Your task to perform on an android device: View the shopping cart on amazon. Add "logitech g933" to the cart on amazon Image 0: 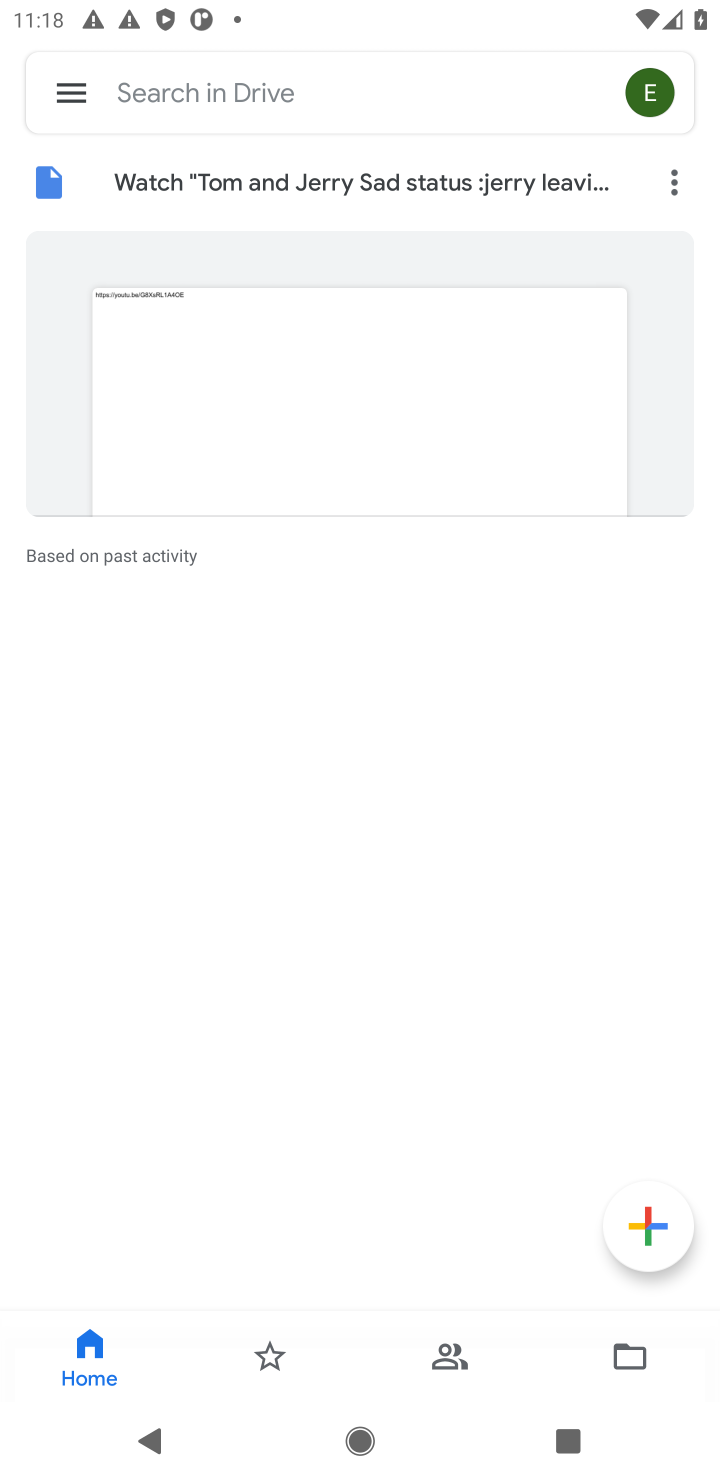
Step 0: press home button
Your task to perform on an android device: View the shopping cart on amazon. Add "logitech g933" to the cart on amazon Image 1: 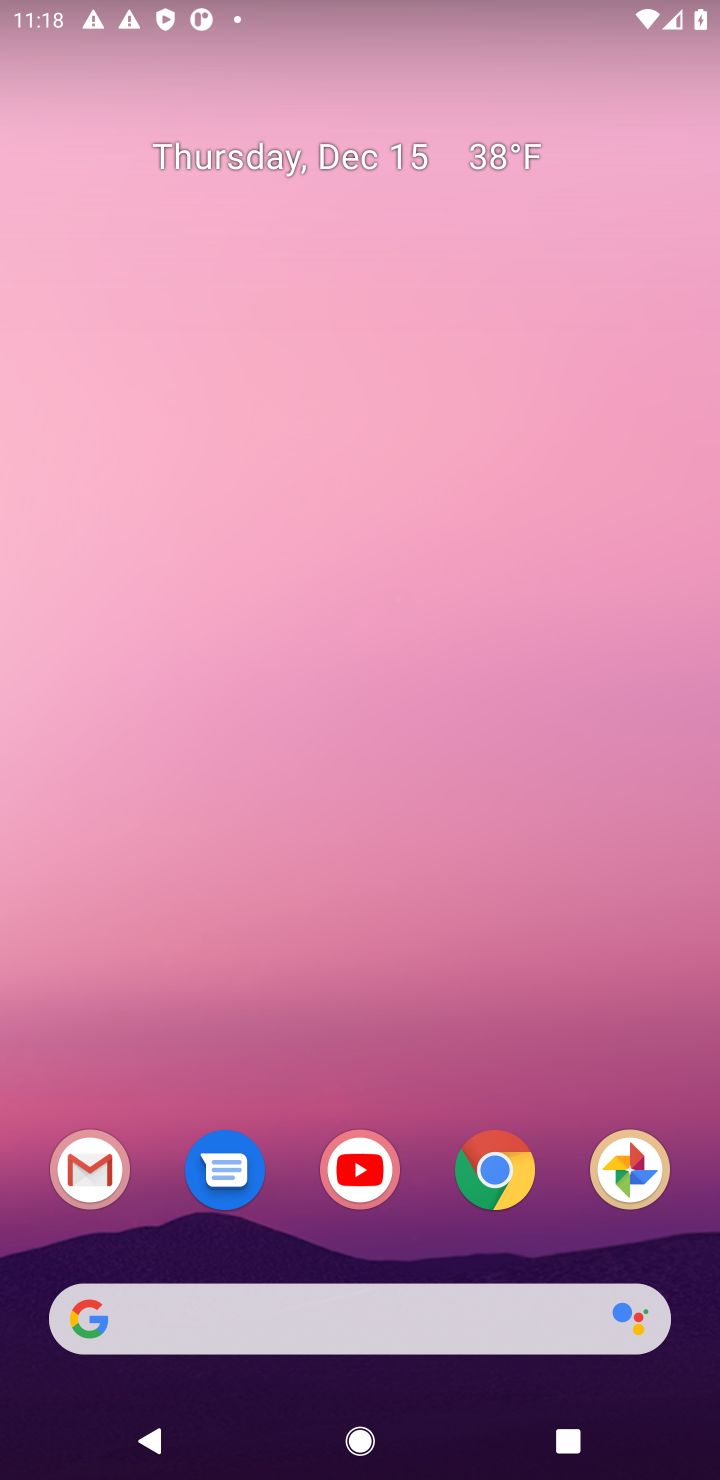
Step 1: click (498, 1178)
Your task to perform on an android device: View the shopping cart on amazon. Add "logitech g933" to the cart on amazon Image 2: 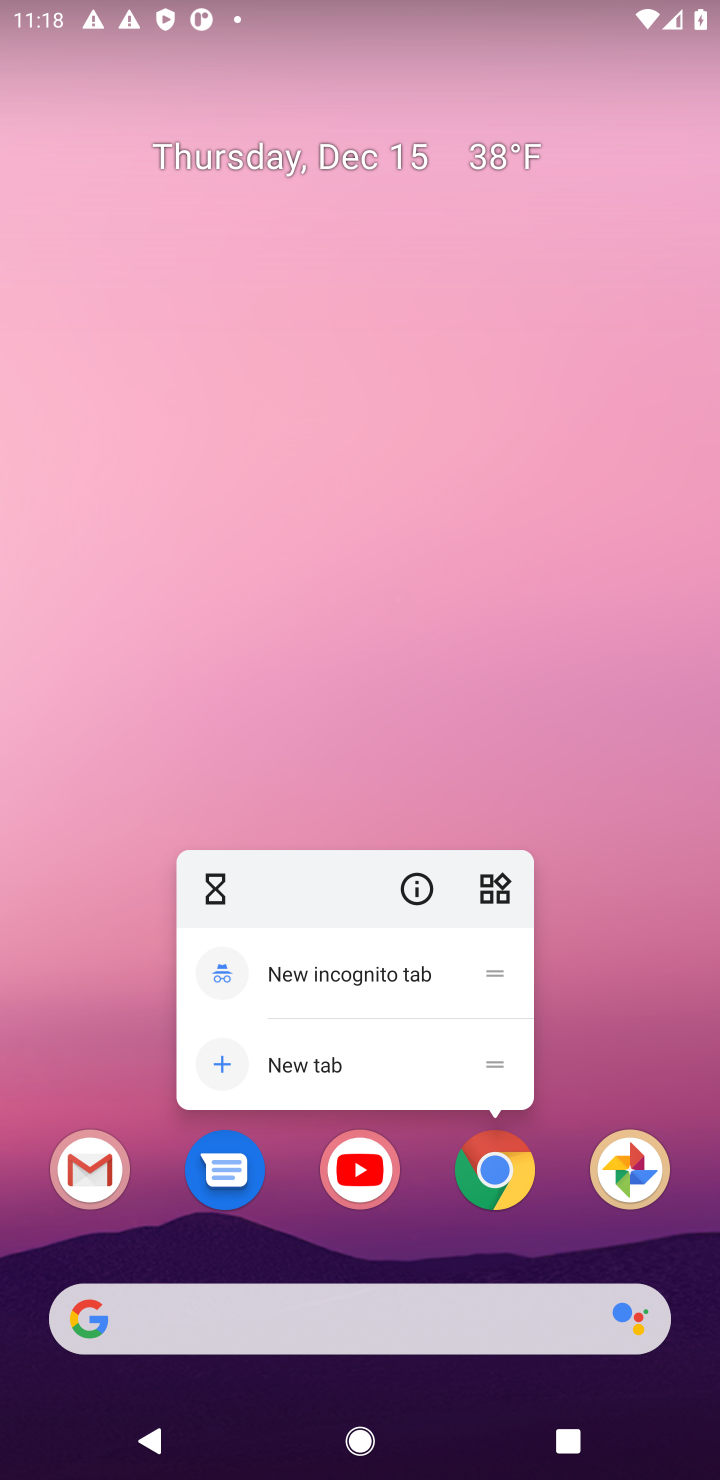
Step 2: click (498, 1178)
Your task to perform on an android device: View the shopping cart on amazon. Add "logitech g933" to the cart on amazon Image 3: 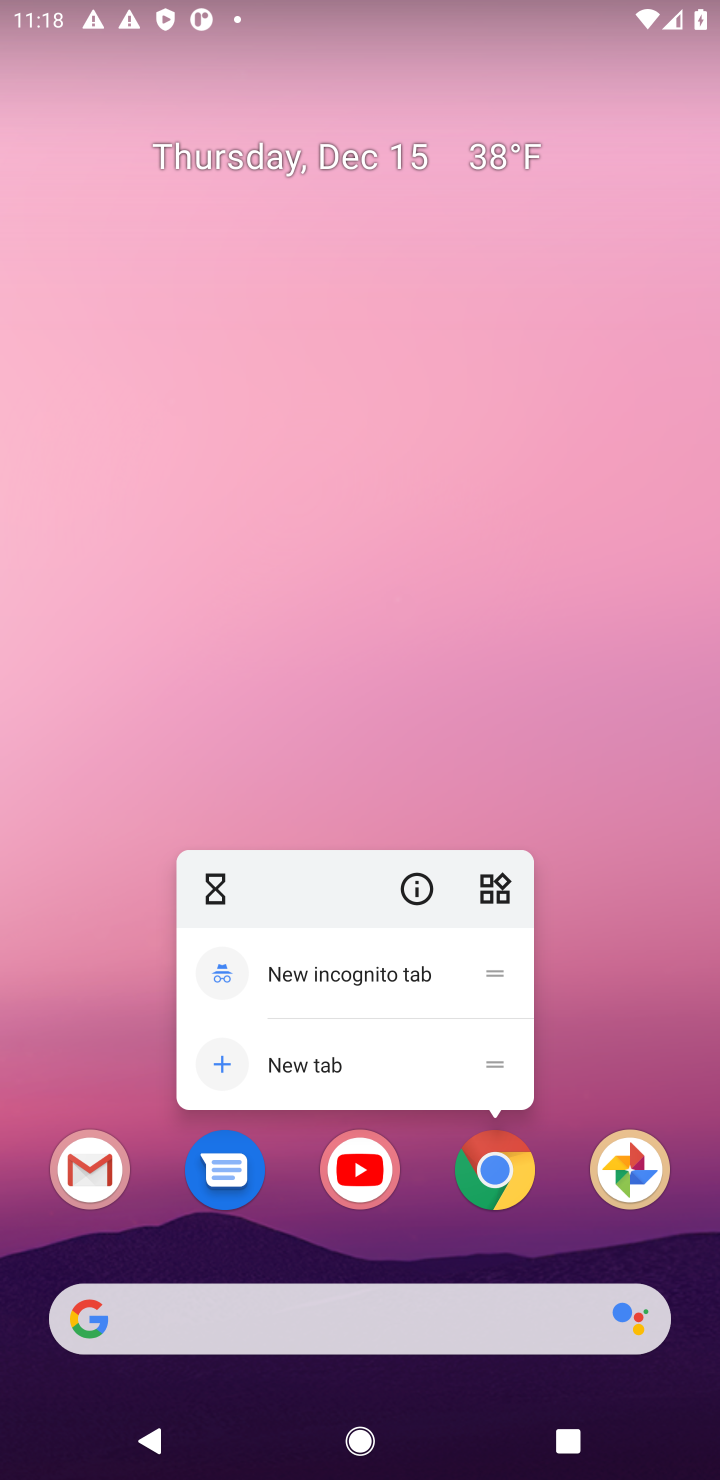
Step 3: click (498, 1178)
Your task to perform on an android device: View the shopping cart on amazon. Add "logitech g933" to the cart on amazon Image 4: 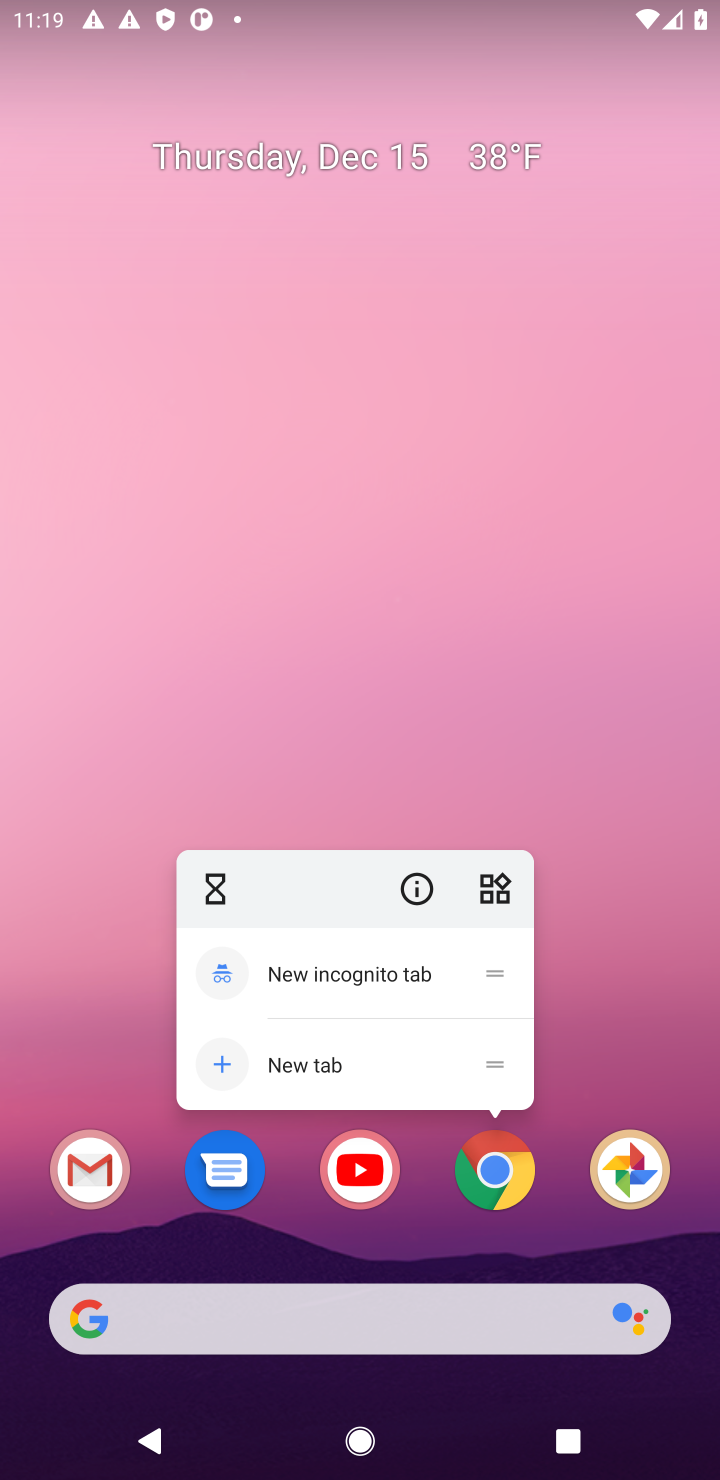
Step 4: click (503, 1184)
Your task to perform on an android device: View the shopping cart on amazon. Add "logitech g933" to the cart on amazon Image 5: 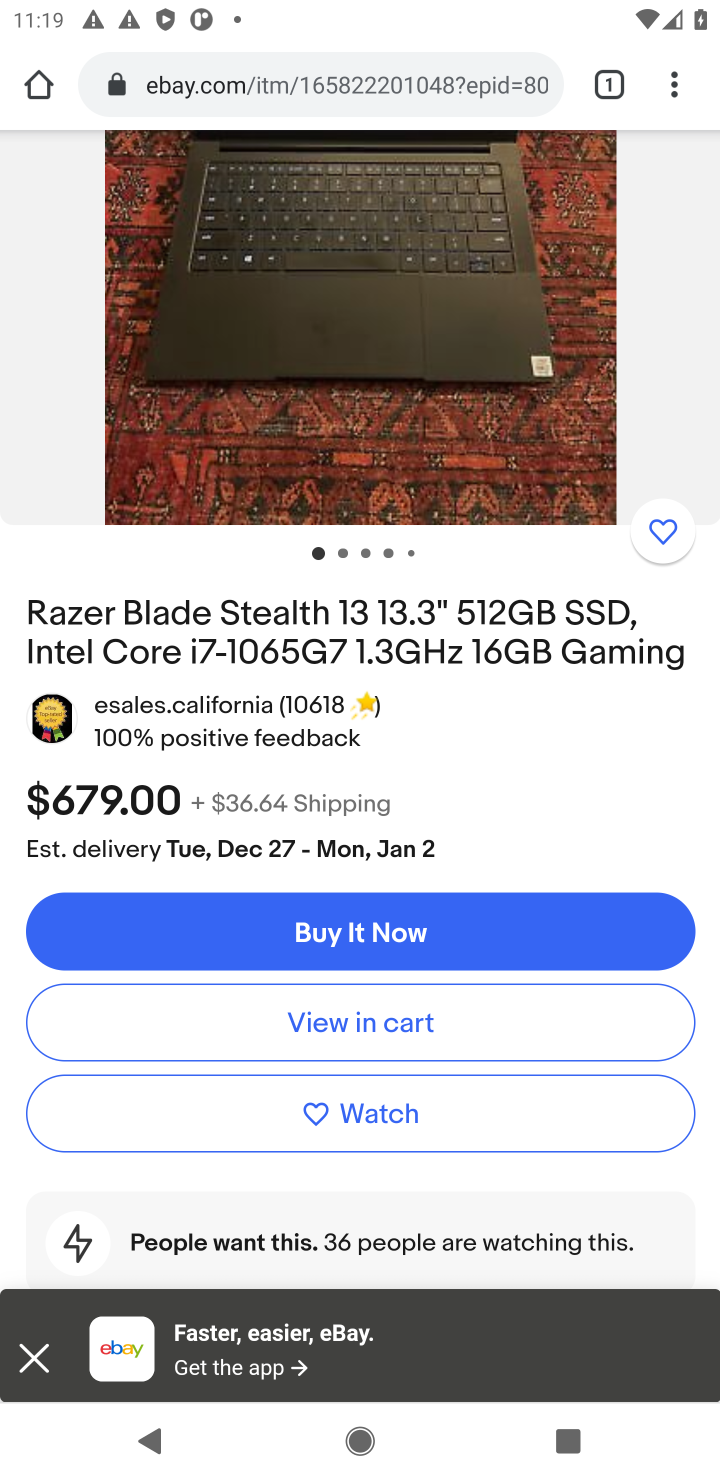
Step 5: click (294, 89)
Your task to perform on an android device: View the shopping cart on amazon. Add "logitech g933" to the cart on amazon Image 6: 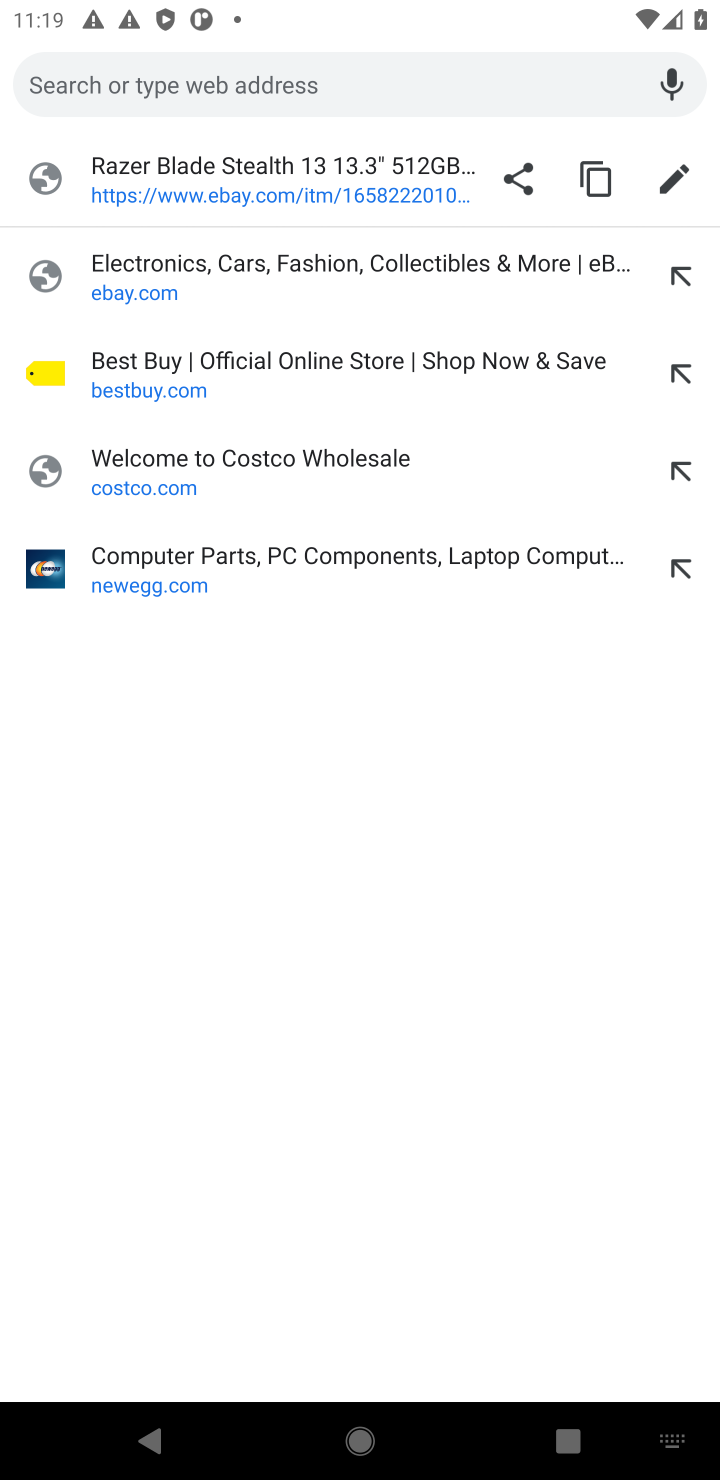
Step 6: type "amazon.com"
Your task to perform on an android device: View the shopping cart on amazon. Add "logitech g933" to the cart on amazon Image 7: 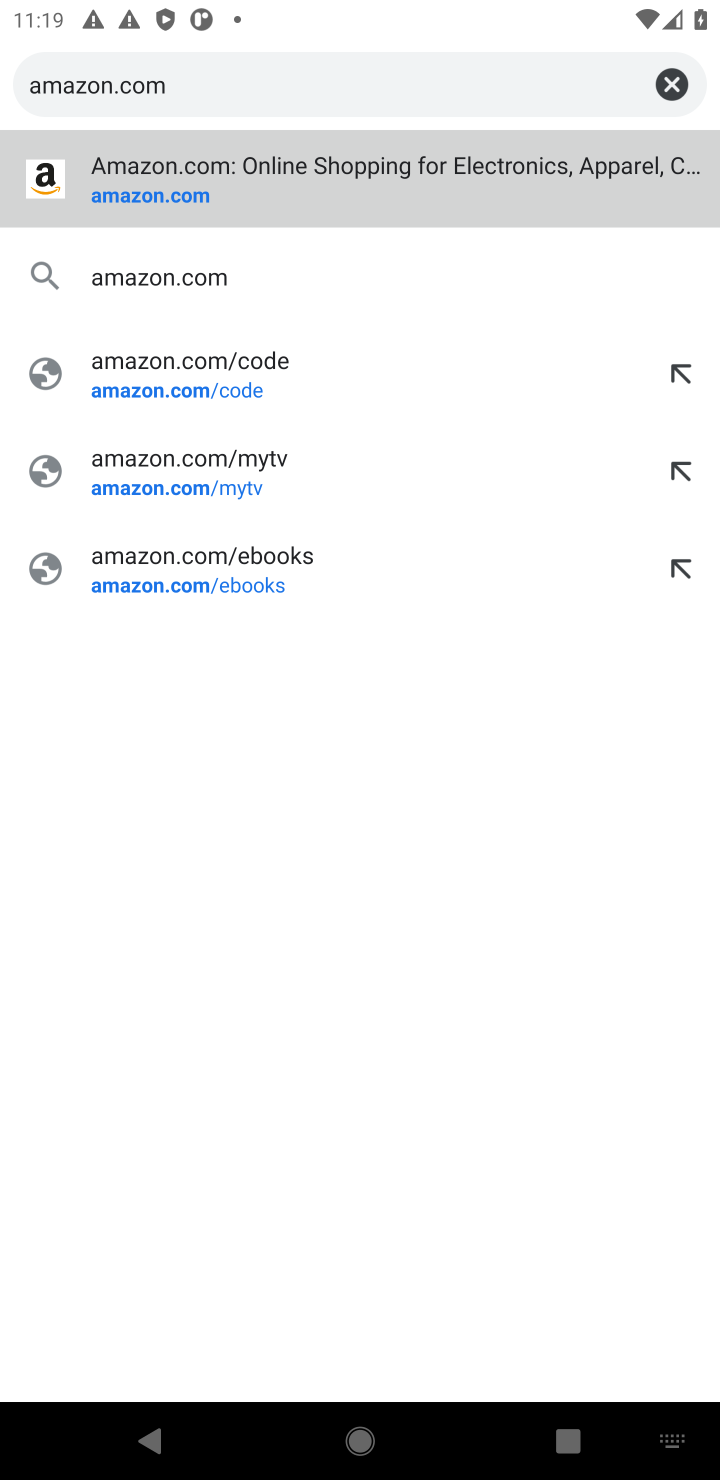
Step 7: click (153, 208)
Your task to perform on an android device: View the shopping cart on amazon. Add "logitech g933" to the cart on amazon Image 8: 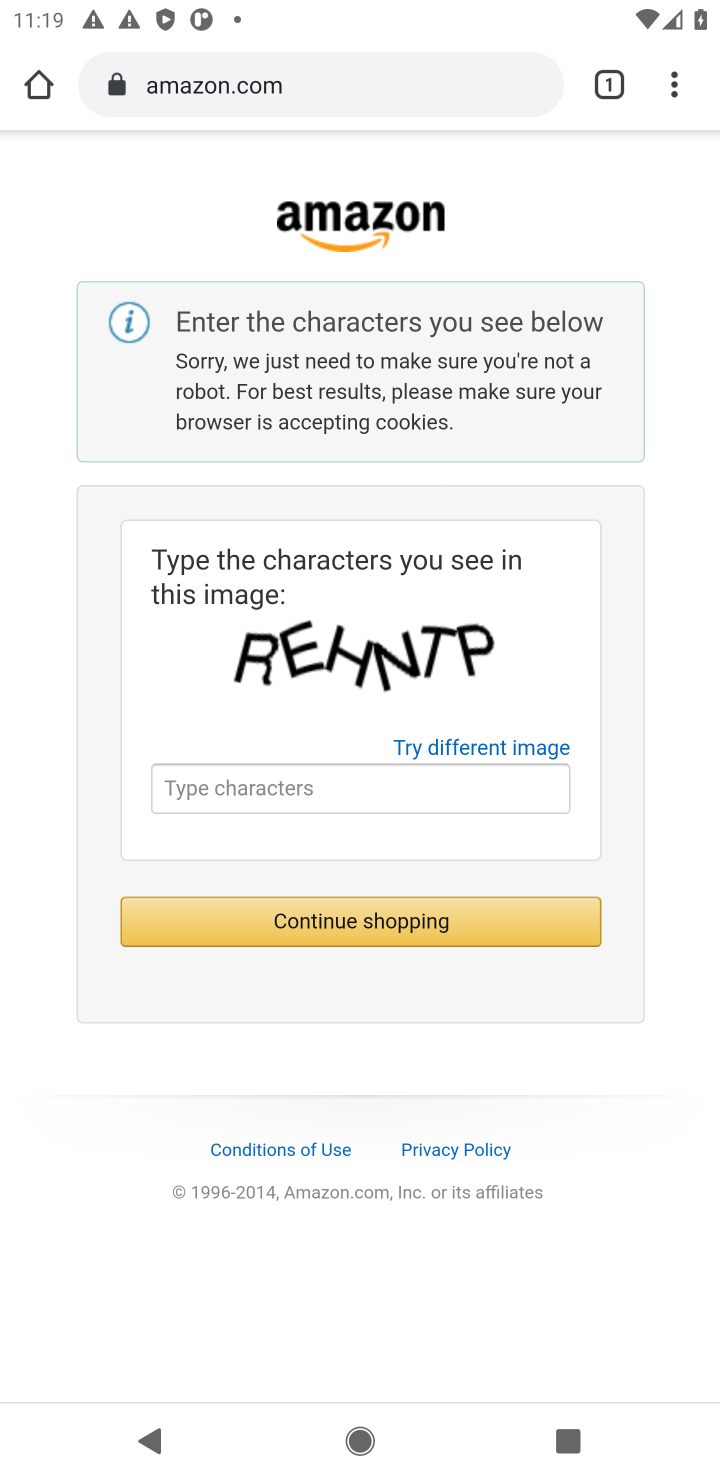
Step 8: click (287, 787)
Your task to perform on an android device: View the shopping cart on amazon. Add "logitech g933" to the cart on amazon Image 9: 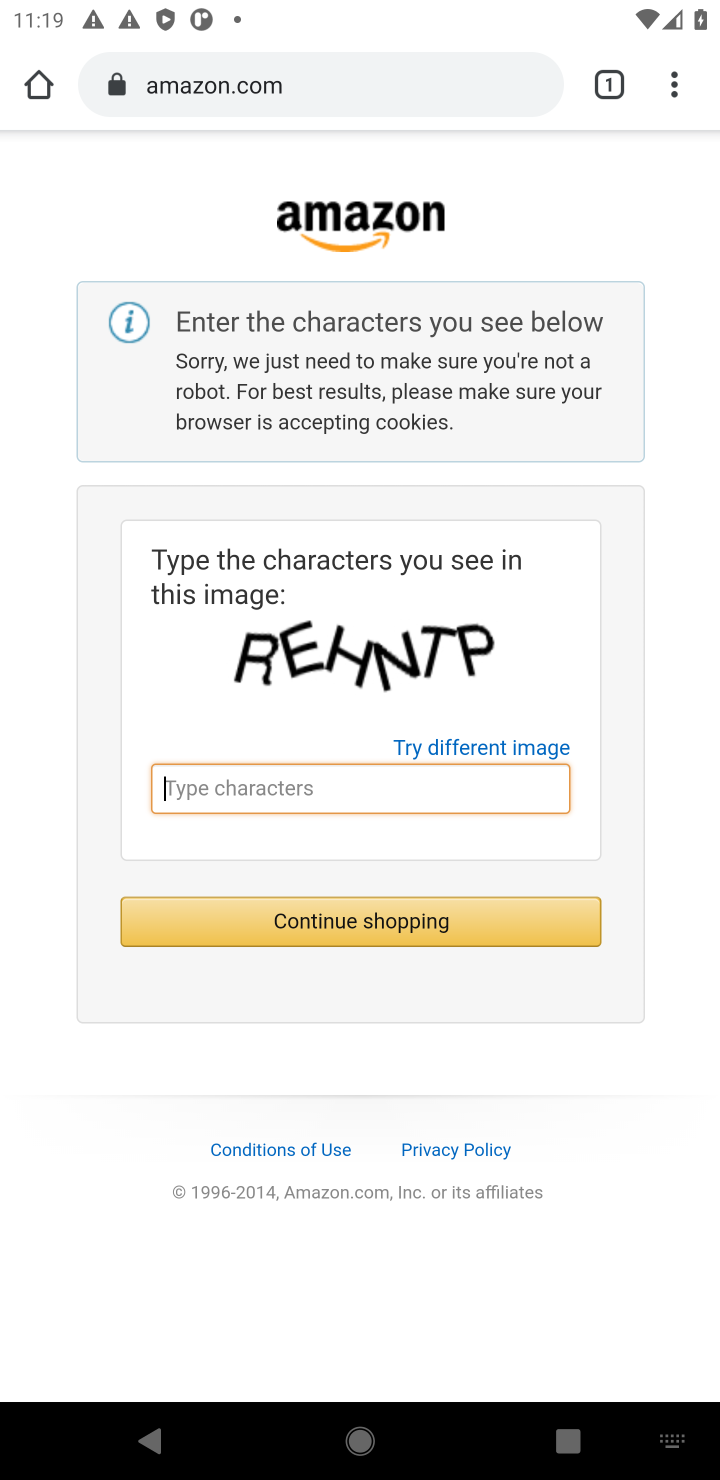
Step 9: type "REHNTP"
Your task to perform on an android device: View the shopping cart on amazon. Add "logitech g933" to the cart on amazon Image 10: 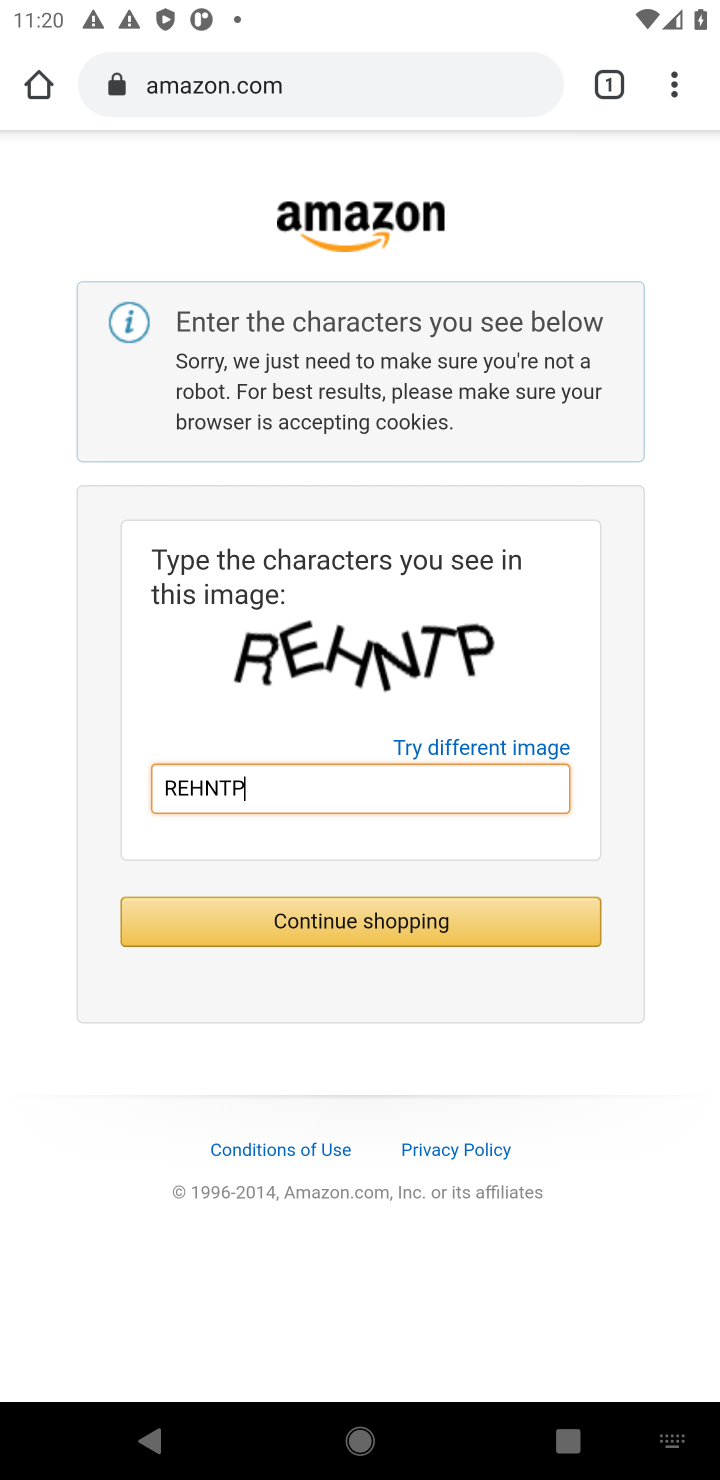
Step 10: click (423, 924)
Your task to perform on an android device: View the shopping cart on amazon. Add "logitech g933" to the cart on amazon Image 11: 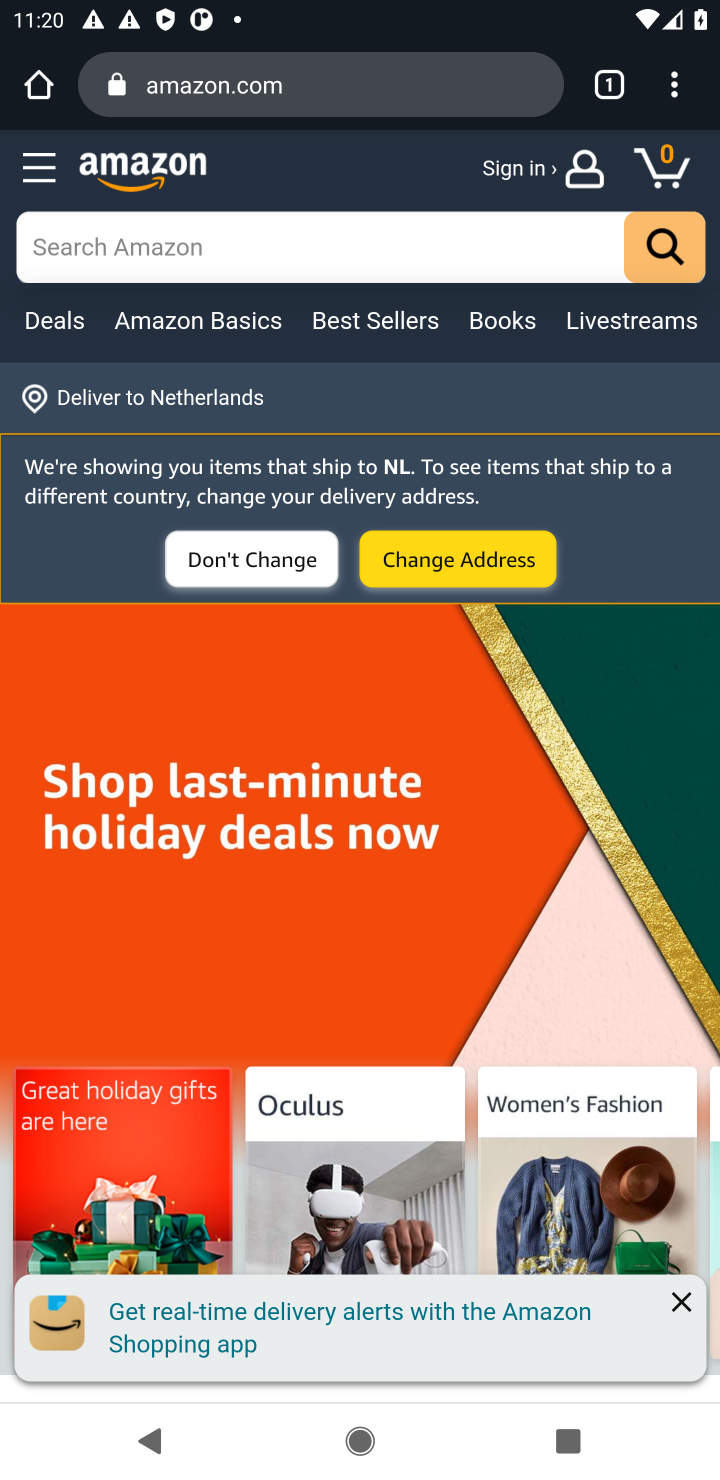
Step 11: click (95, 248)
Your task to perform on an android device: View the shopping cart on amazon. Add "logitech g933" to the cart on amazon Image 12: 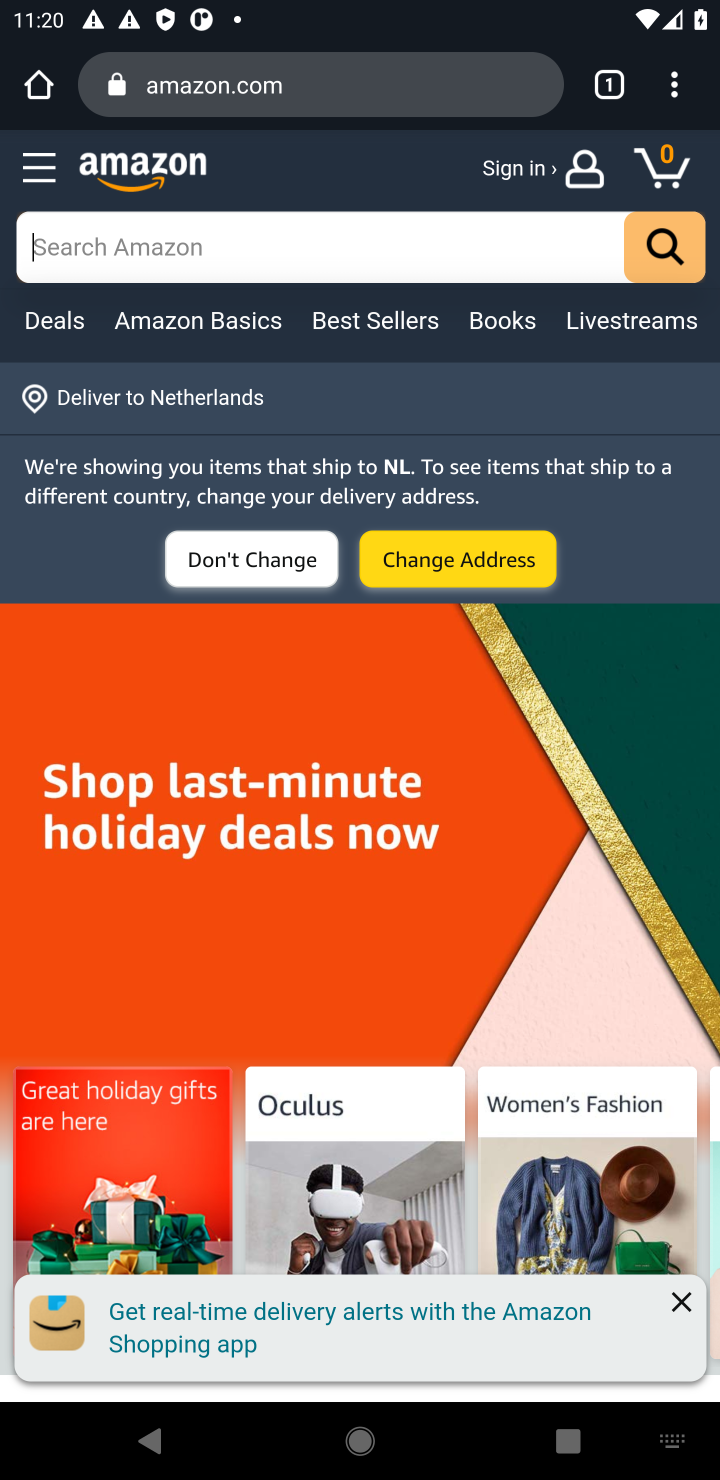
Step 12: type "logitech g933"
Your task to perform on an android device: View the shopping cart on amazon. Add "logitech g933" to the cart on amazon Image 13: 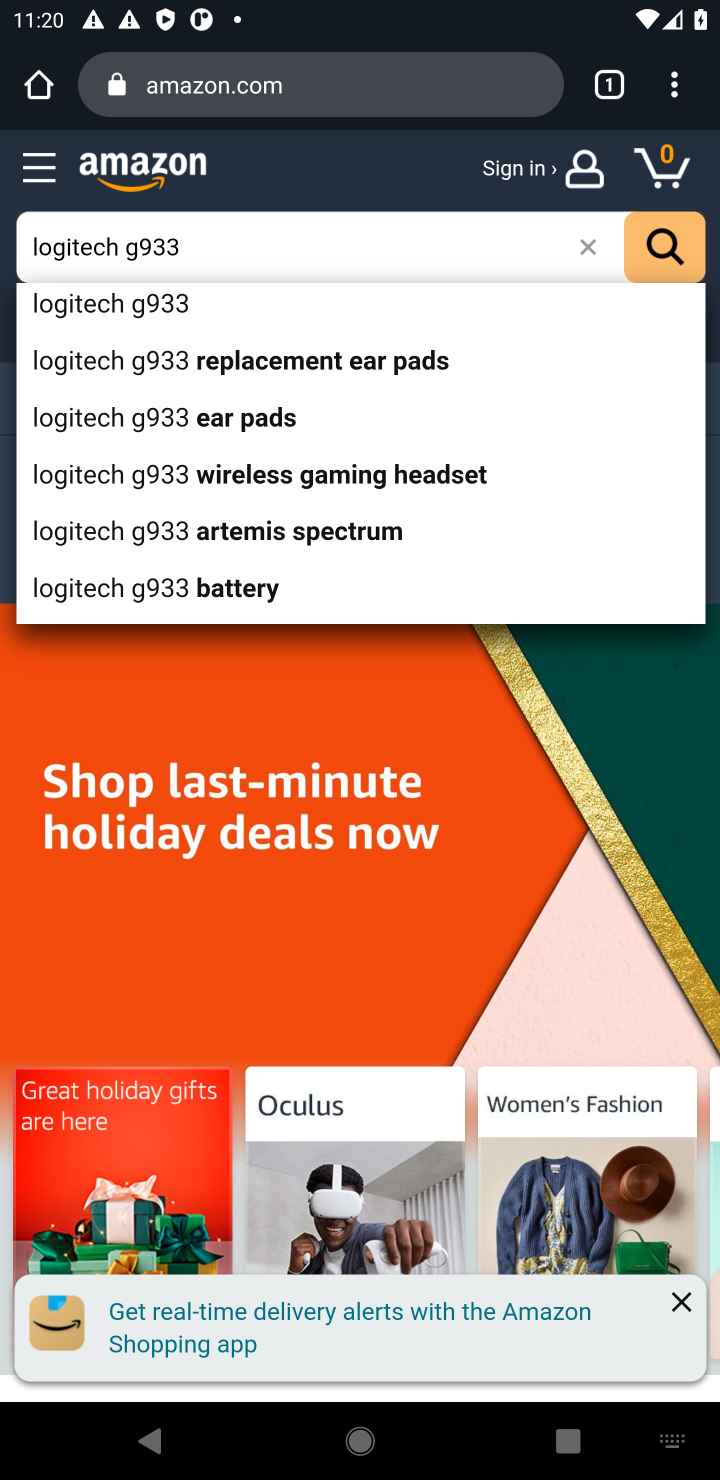
Step 13: click (153, 303)
Your task to perform on an android device: View the shopping cart on amazon. Add "logitech g933" to the cart on amazon Image 14: 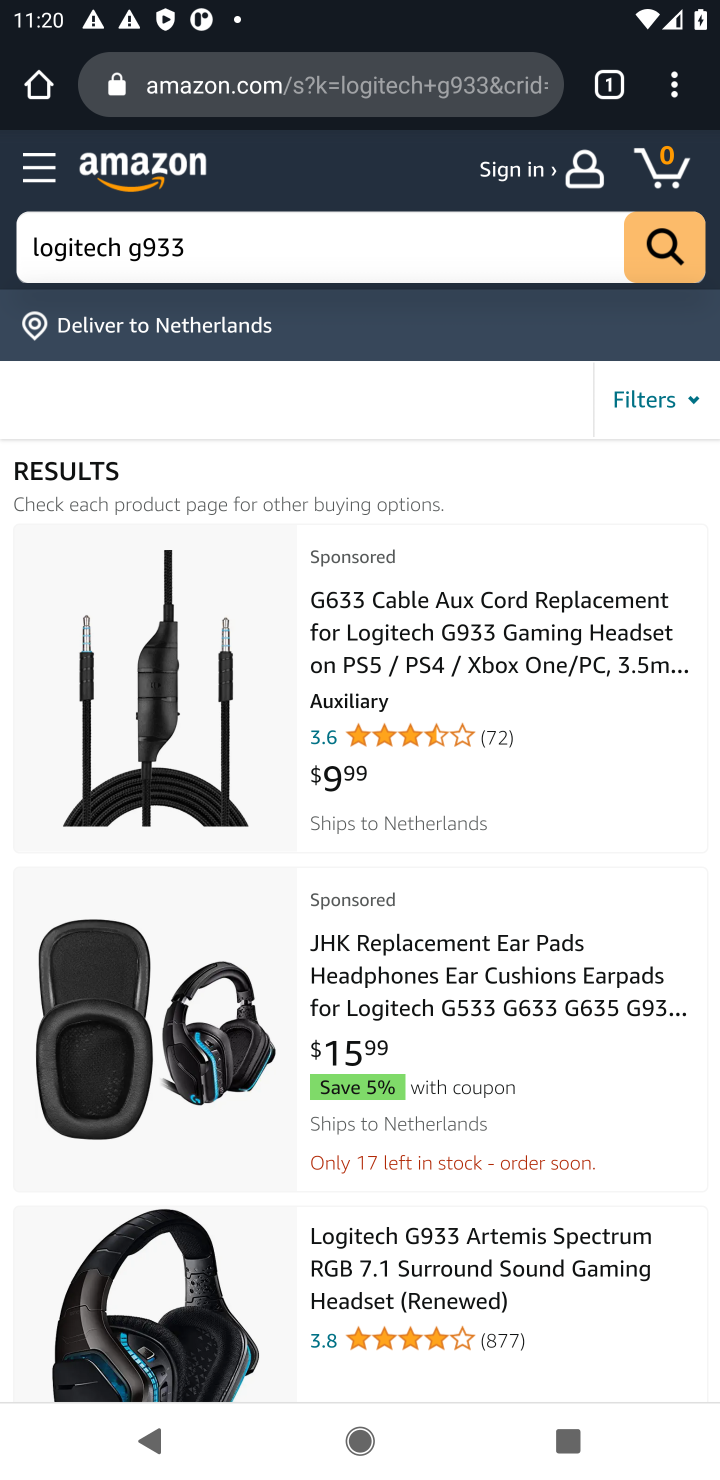
Step 14: click (461, 646)
Your task to perform on an android device: View the shopping cart on amazon. Add "logitech g933" to the cart on amazon Image 15: 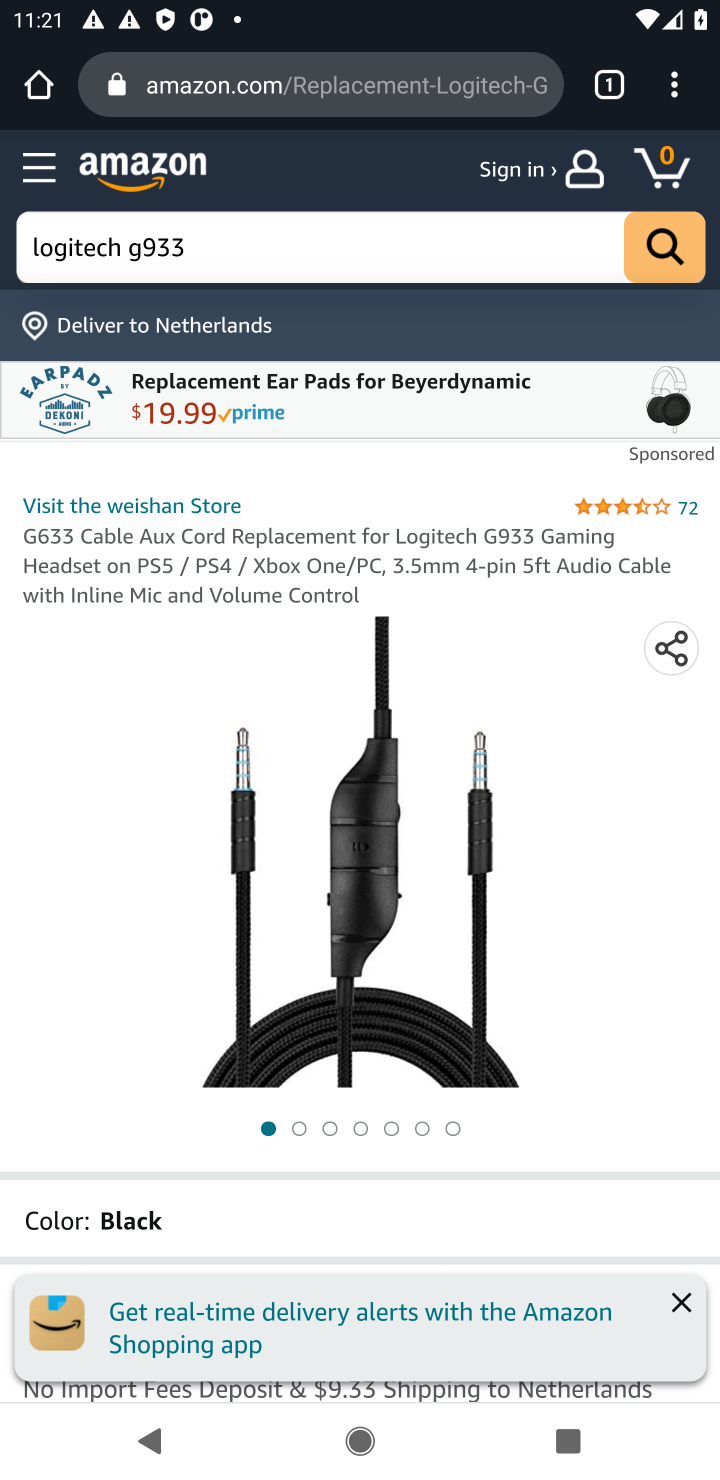
Step 15: drag from (327, 1106) to (350, 845)
Your task to perform on an android device: View the shopping cart on amazon. Add "logitech g933" to the cart on amazon Image 16: 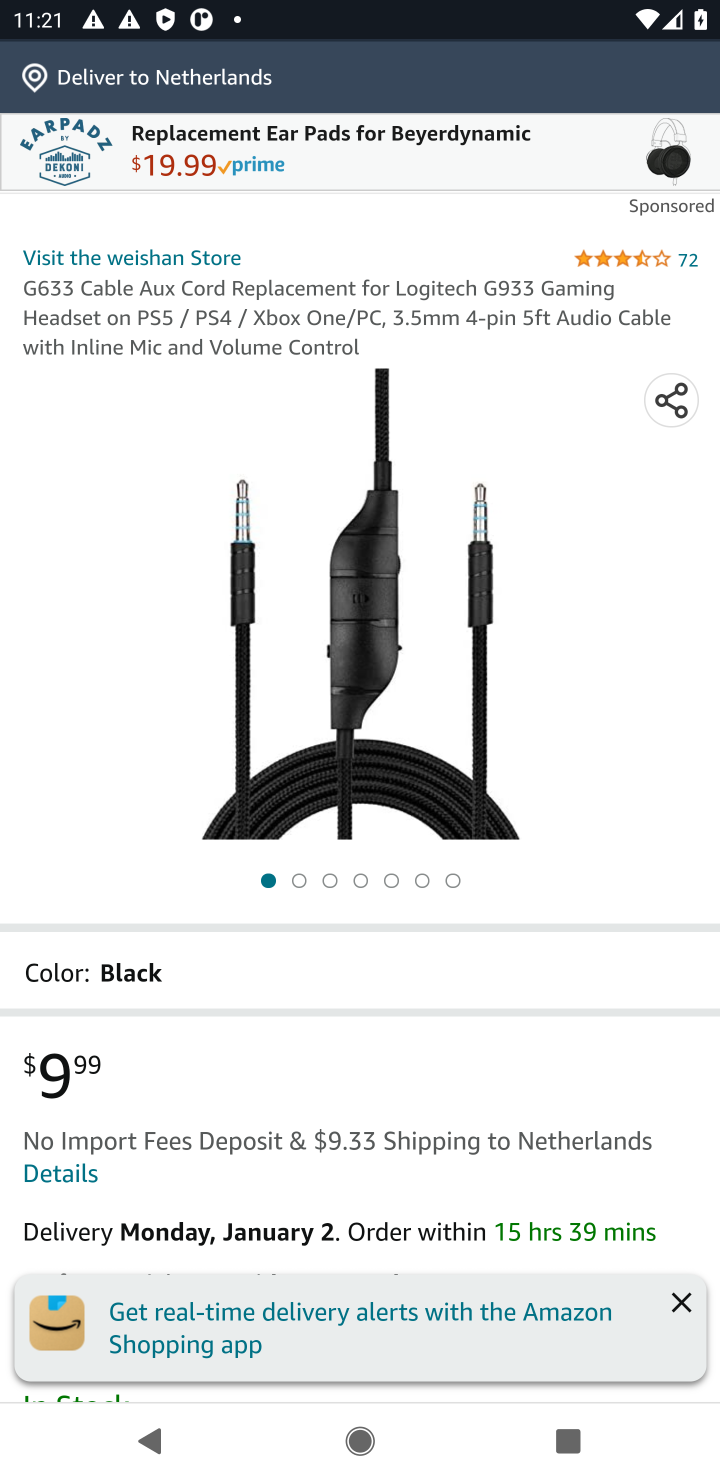
Step 16: press back button
Your task to perform on an android device: View the shopping cart on amazon. Add "logitech g933" to the cart on amazon Image 17: 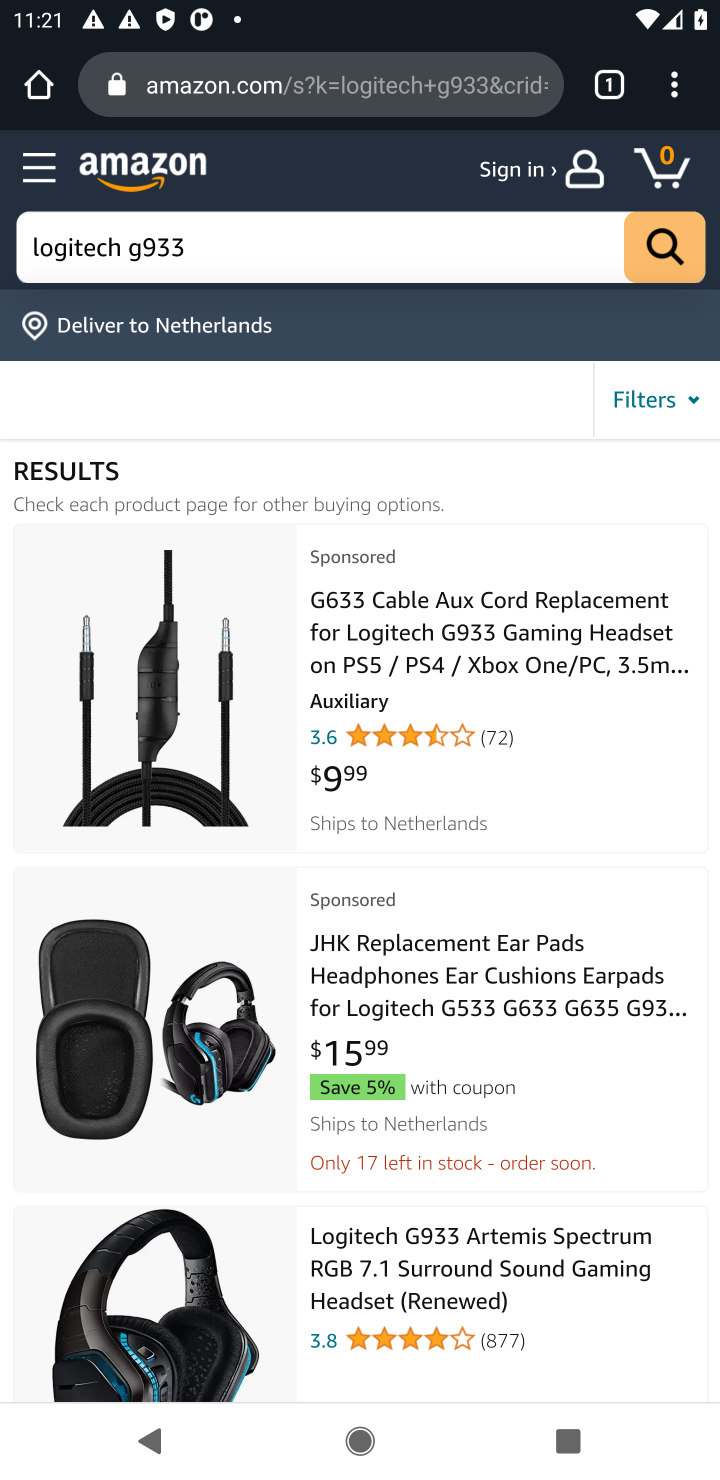
Step 17: click (423, 1273)
Your task to perform on an android device: View the shopping cart on amazon. Add "logitech g933" to the cart on amazon Image 18: 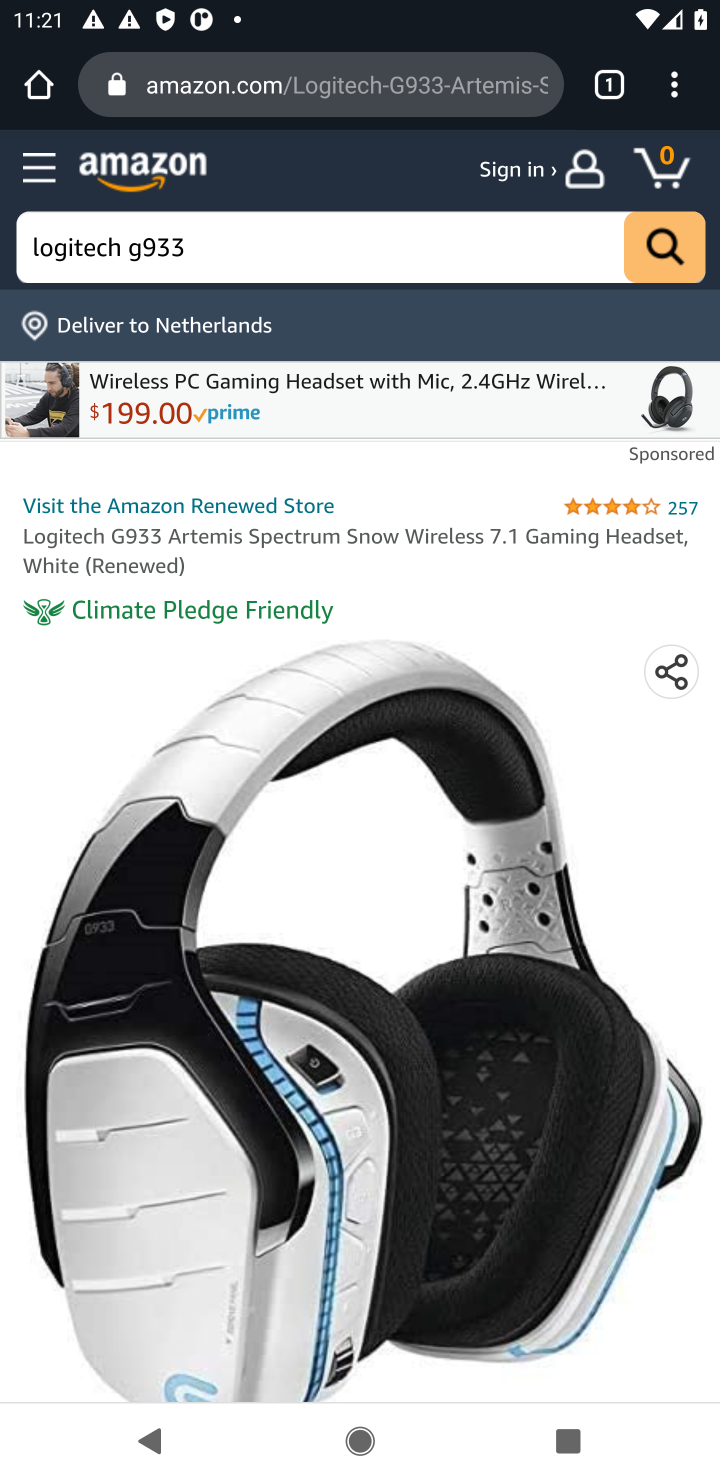
Step 18: drag from (398, 1251) to (430, 567)
Your task to perform on an android device: View the shopping cart on amazon. Add "logitech g933" to the cart on amazon Image 19: 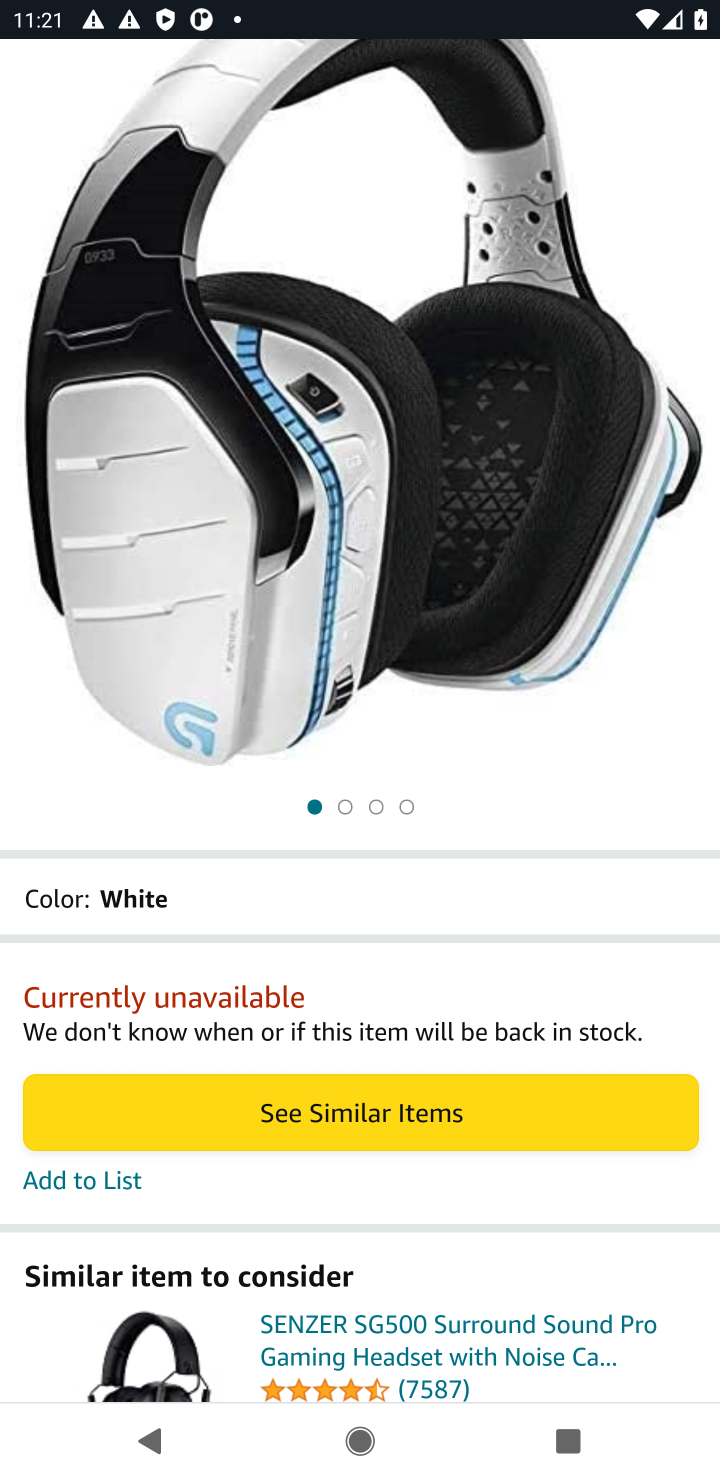
Step 19: press back button
Your task to perform on an android device: View the shopping cart on amazon. Add "logitech g933" to the cart on amazon Image 20: 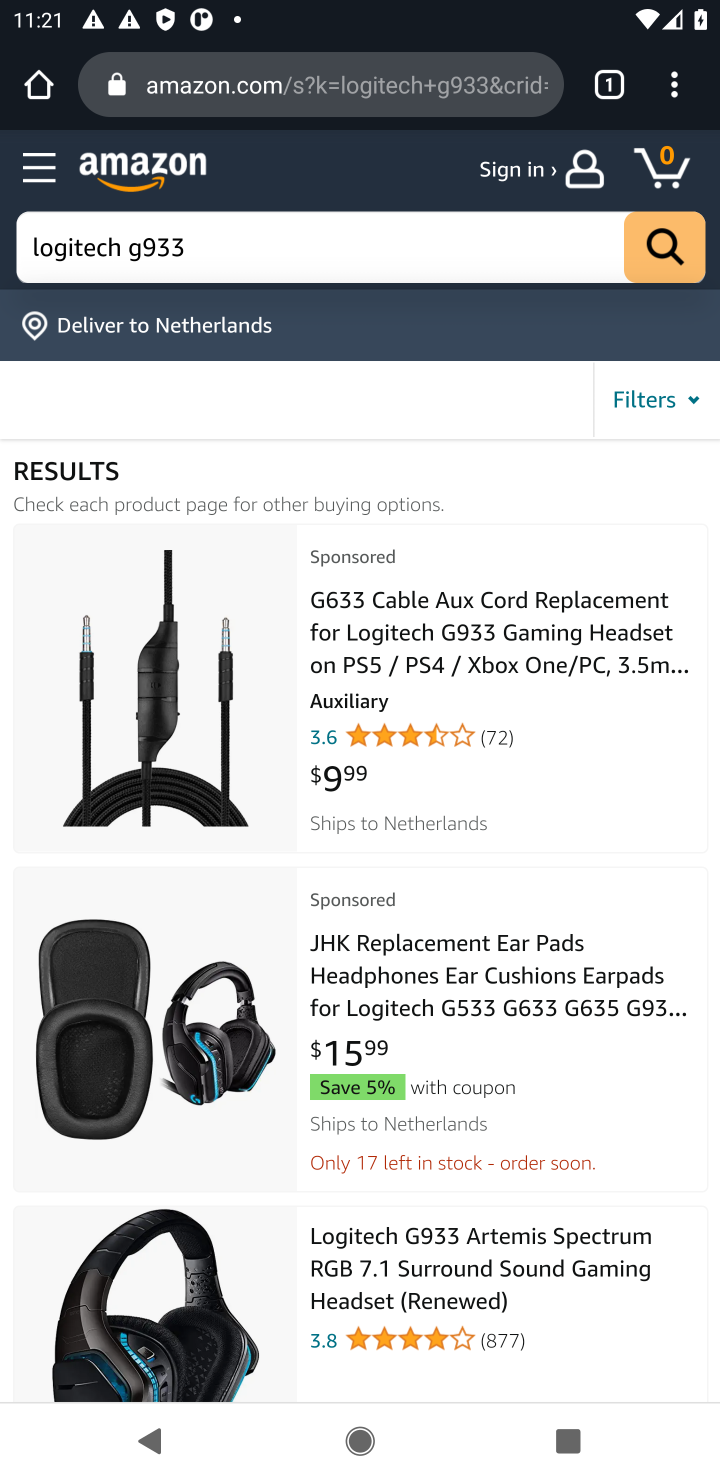
Step 20: drag from (283, 1236) to (307, 817)
Your task to perform on an android device: View the shopping cart on amazon. Add "logitech g933" to the cart on amazon Image 21: 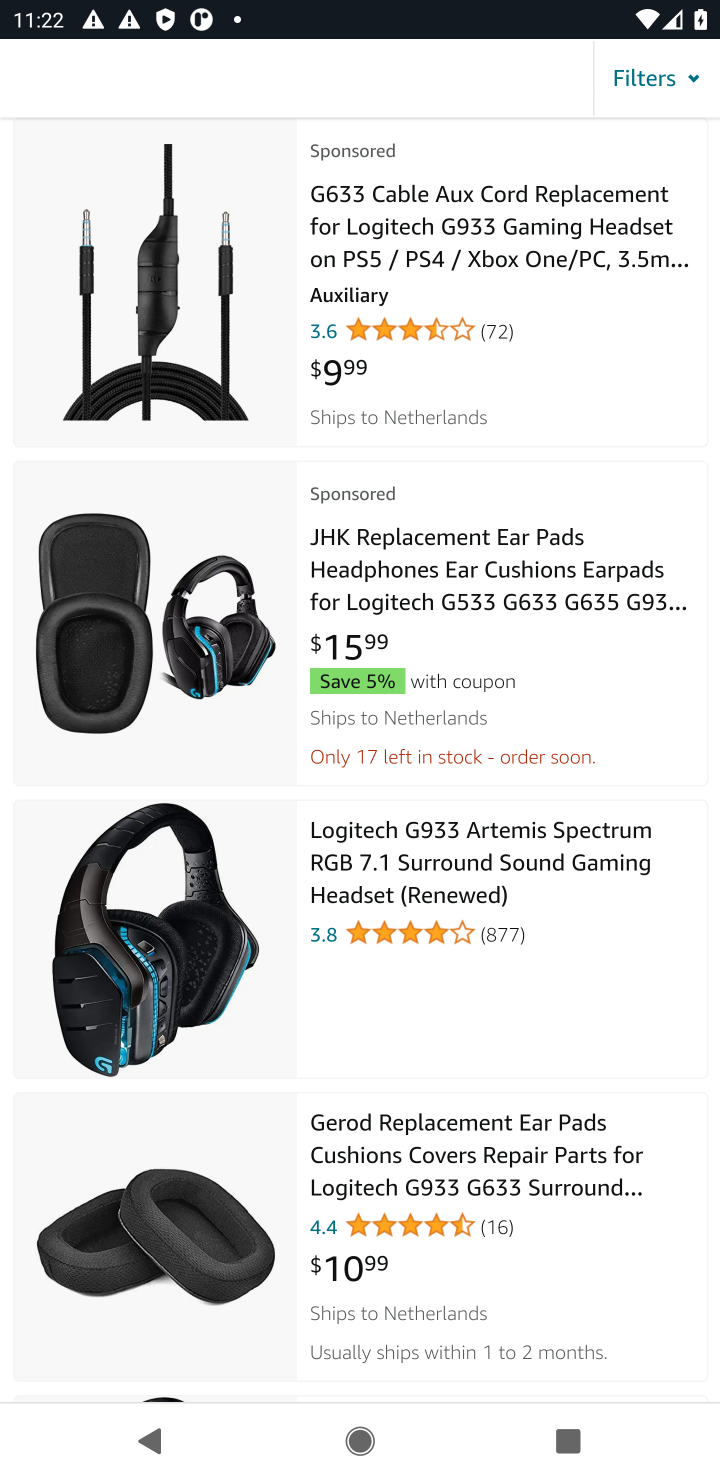
Step 21: drag from (271, 1205) to (311, 716)
Your task to perform on an android device: View the shopping cart on amazon. Add "logitech g933" to the cart on amazon Image 22: 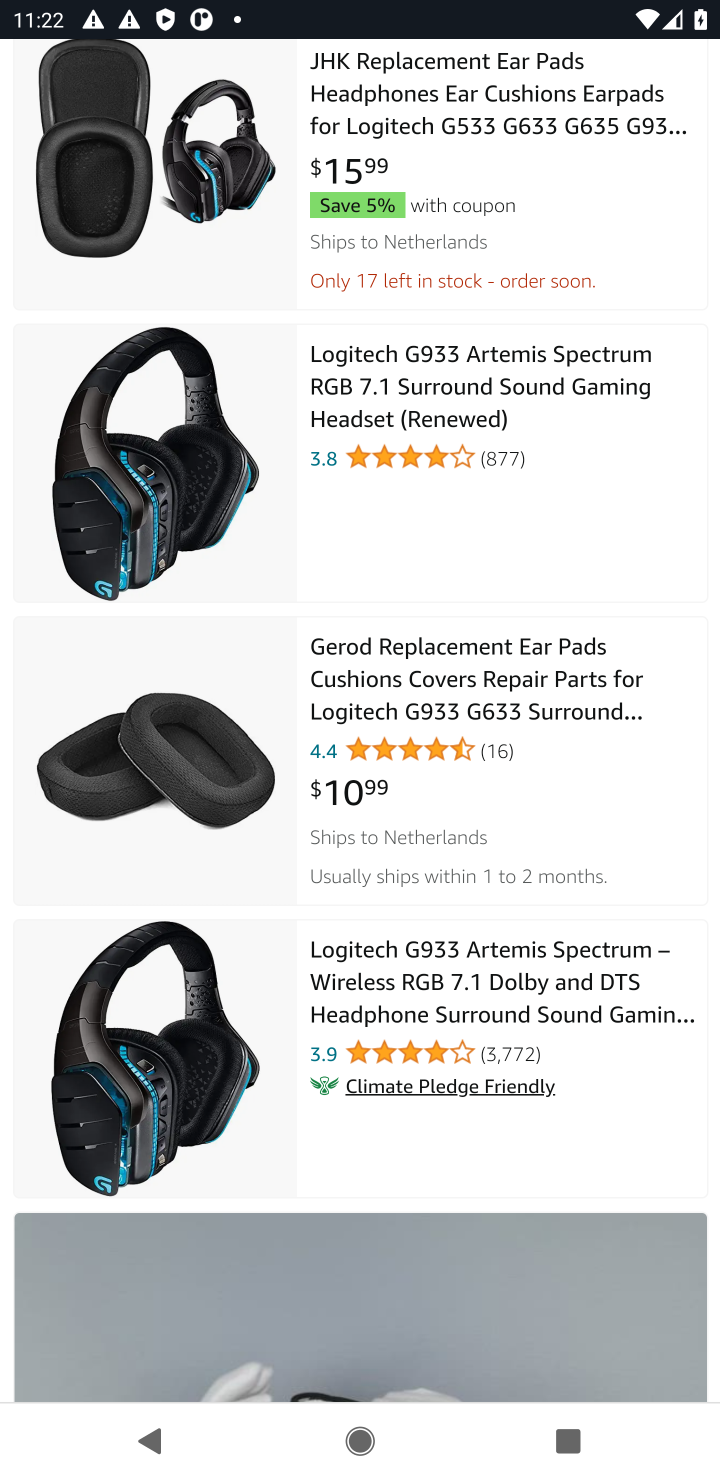
Step 22: drag from (299, 1171) to (362, 604)
Your task to perform on an android device: View the shopping cart on amazon. Add "logitech g933" to the cart on amazon Image 23: 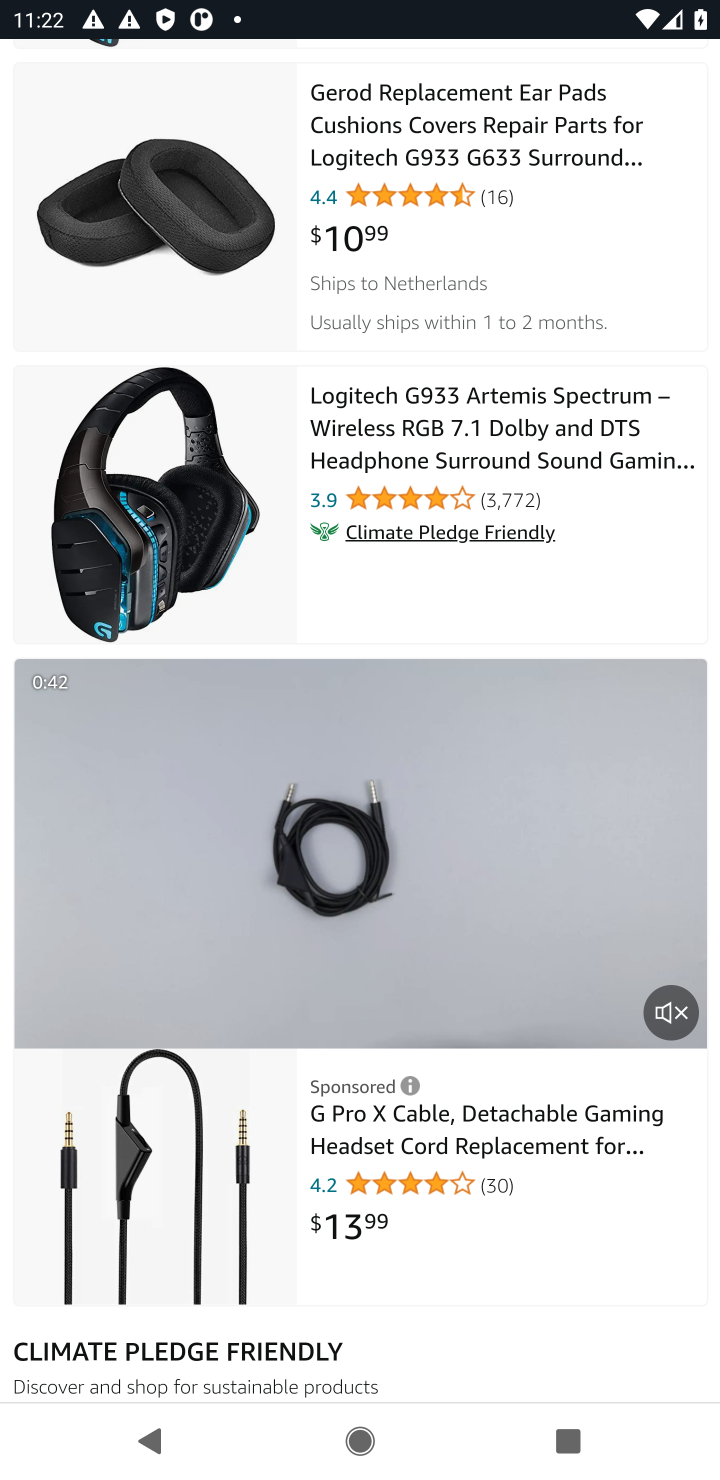
Step 23: drag from (289, 1151) to (328, 674)
Your task to perform on an android device: View the shopping cart on amazon. Add "logitech g933" to the cart on amazon Image 24: 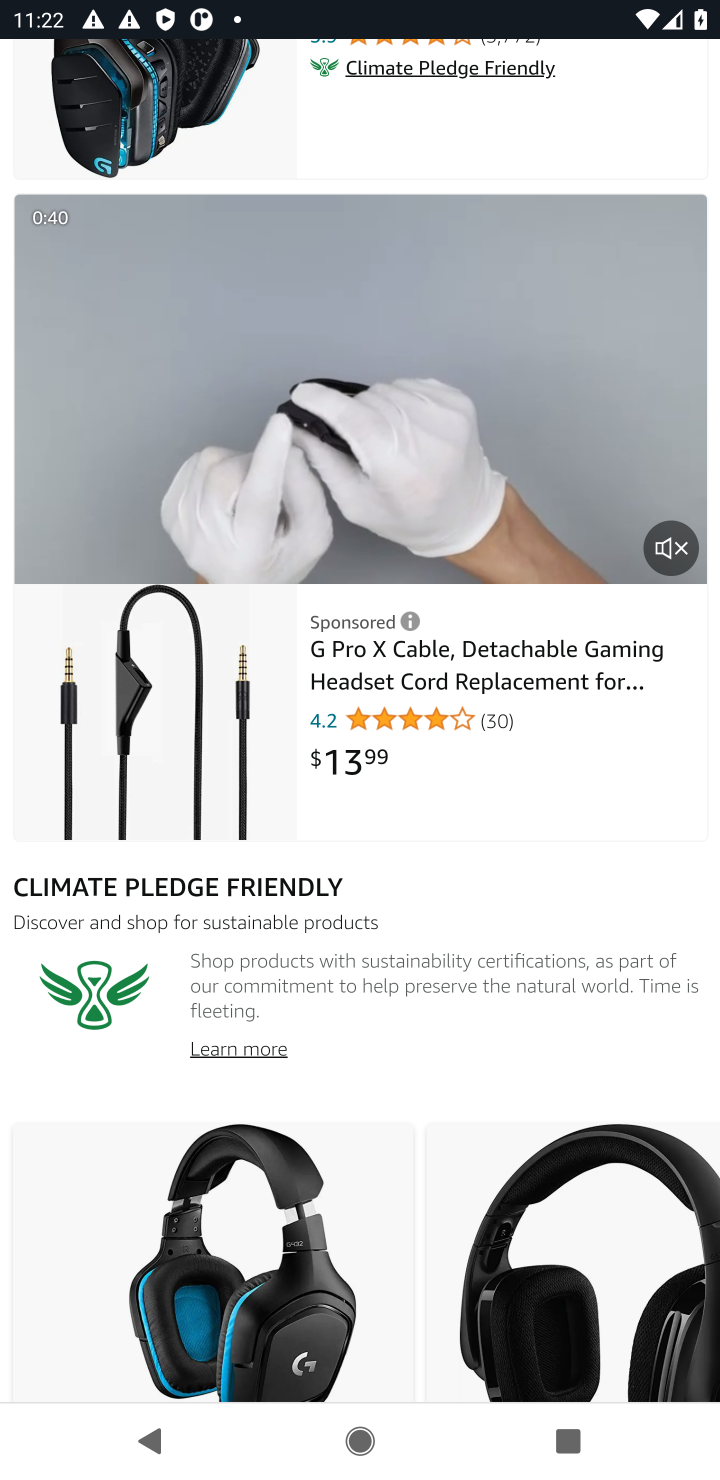
Step 24: drag from (274, 1202) to (298, 563)
Your task to perform on an android device: View the shopping cart on amazon. Add "logitech g933" to the cart on amazon Image 25: 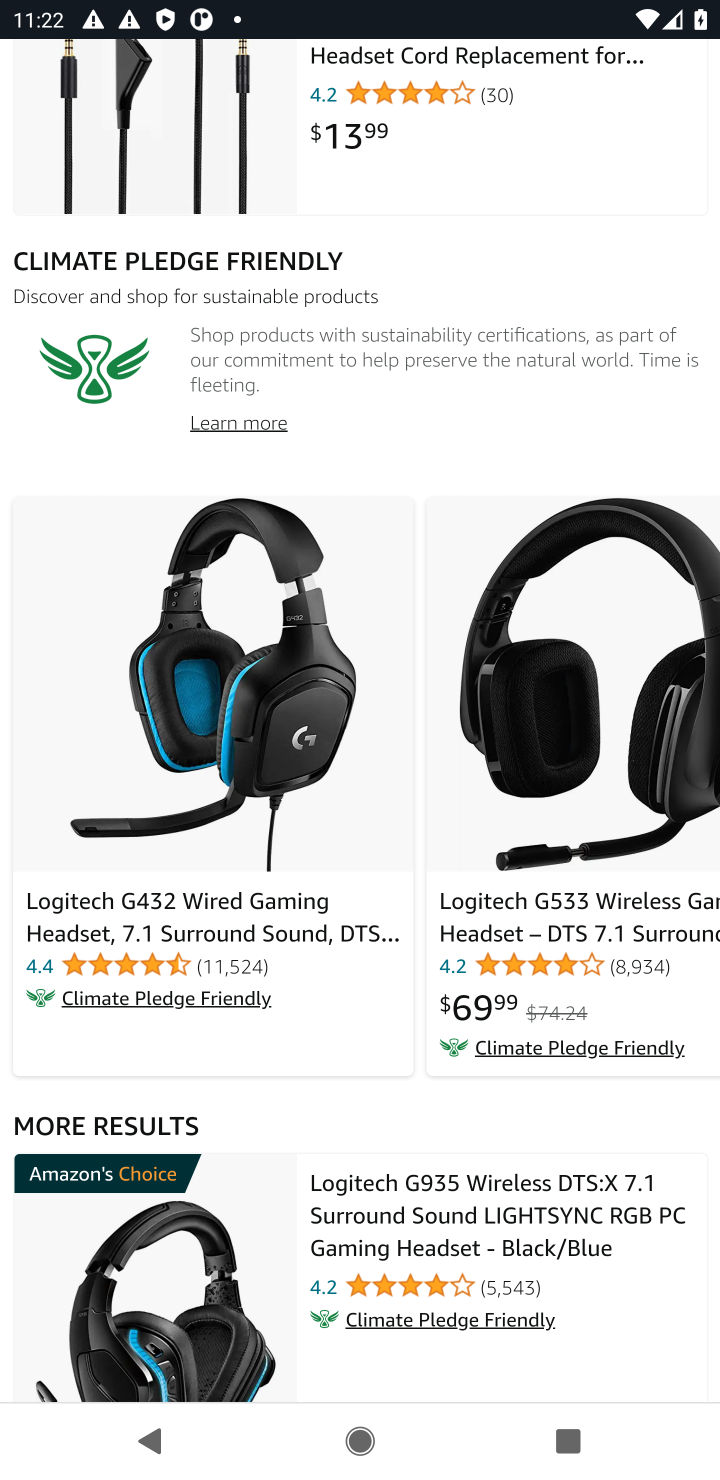
Step 25: drag from (267, 1169) to (319, 684)
Your task to perform on an android device: View the shopping cart on amazon. Add "logitech g933" to the cart on amazon Image 26: 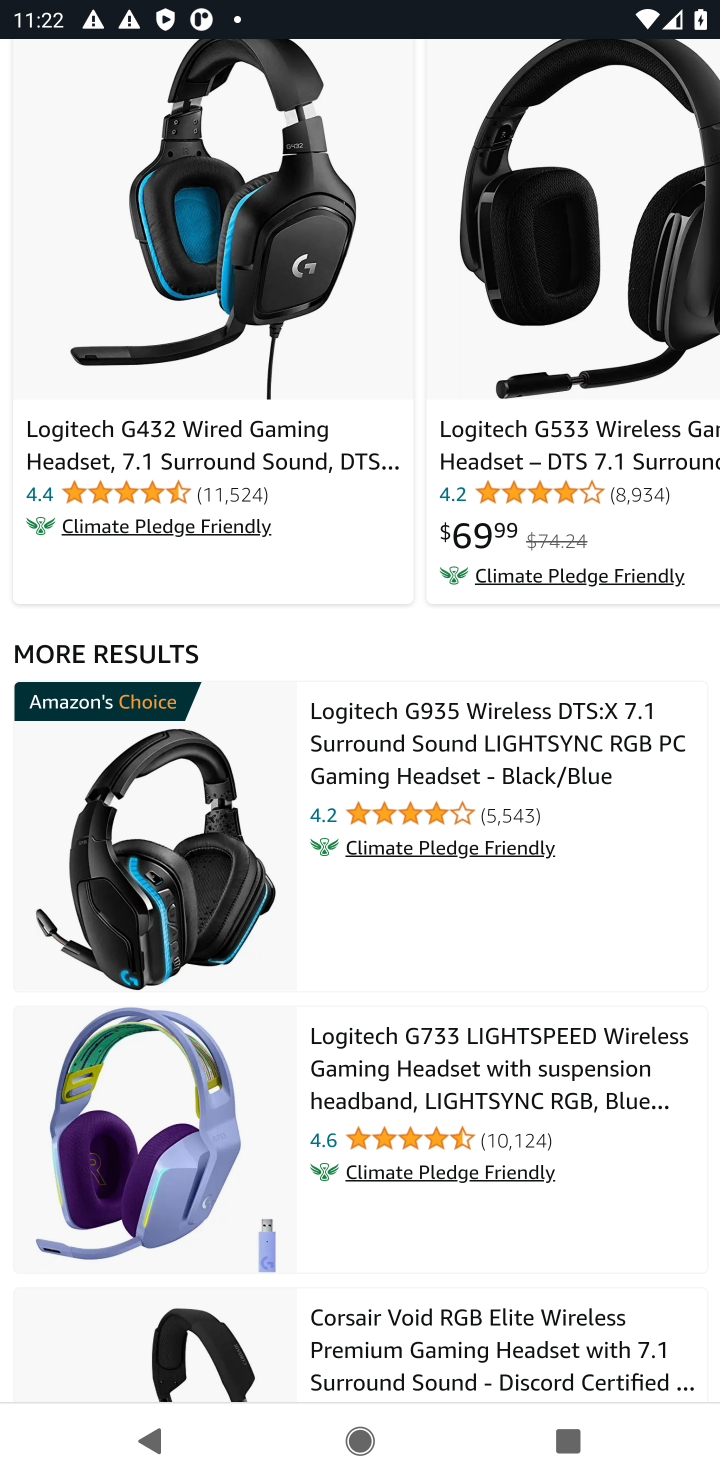
Step 26: drag from (276, 1160) to (338, 709)
Your task to perform on an android device: View the shopping cart on amazon. Add "logitech g933" to the cart on amazon Image 27: 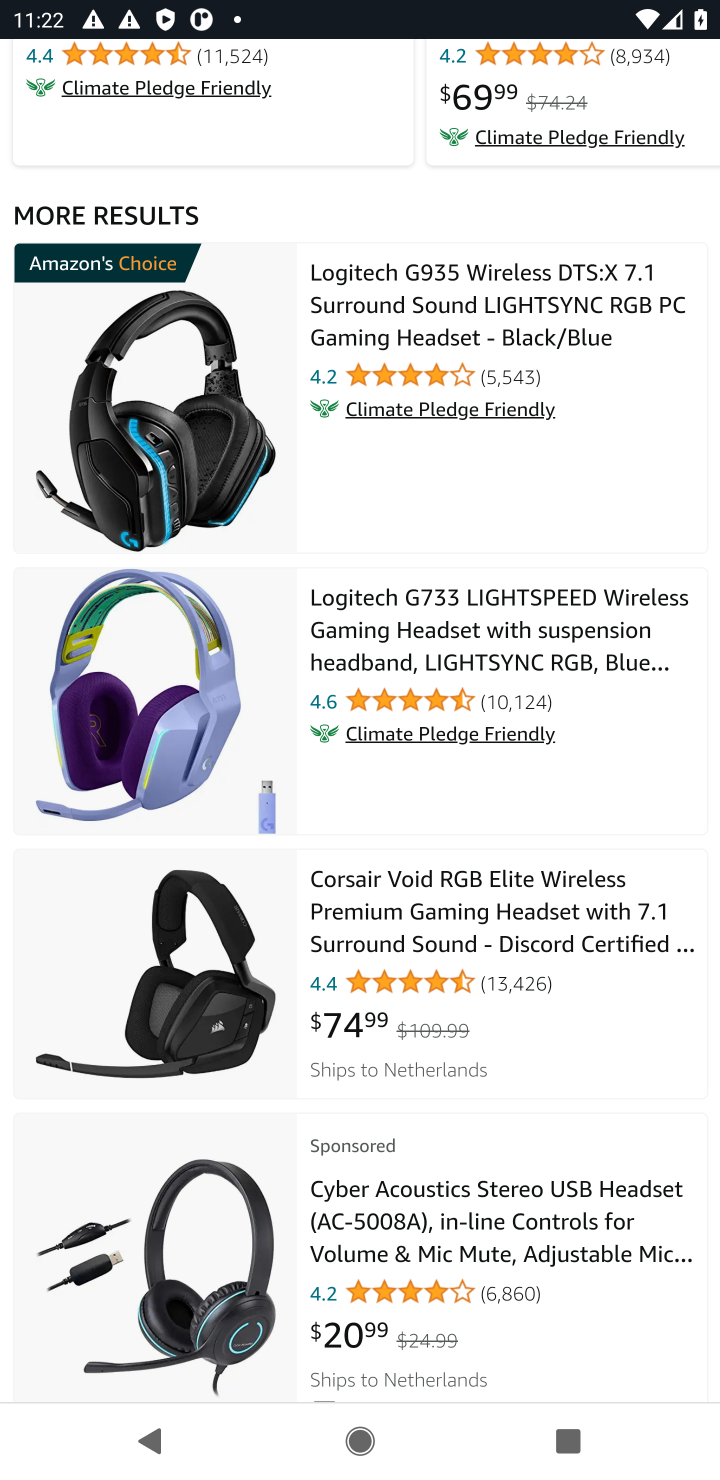
Step 27: drag from (302, 1129) to (339, 726)
Your task to perform on an android device: View the shopping cart on amazon. Add "logitech g933" to the cart on amazon Image 28: 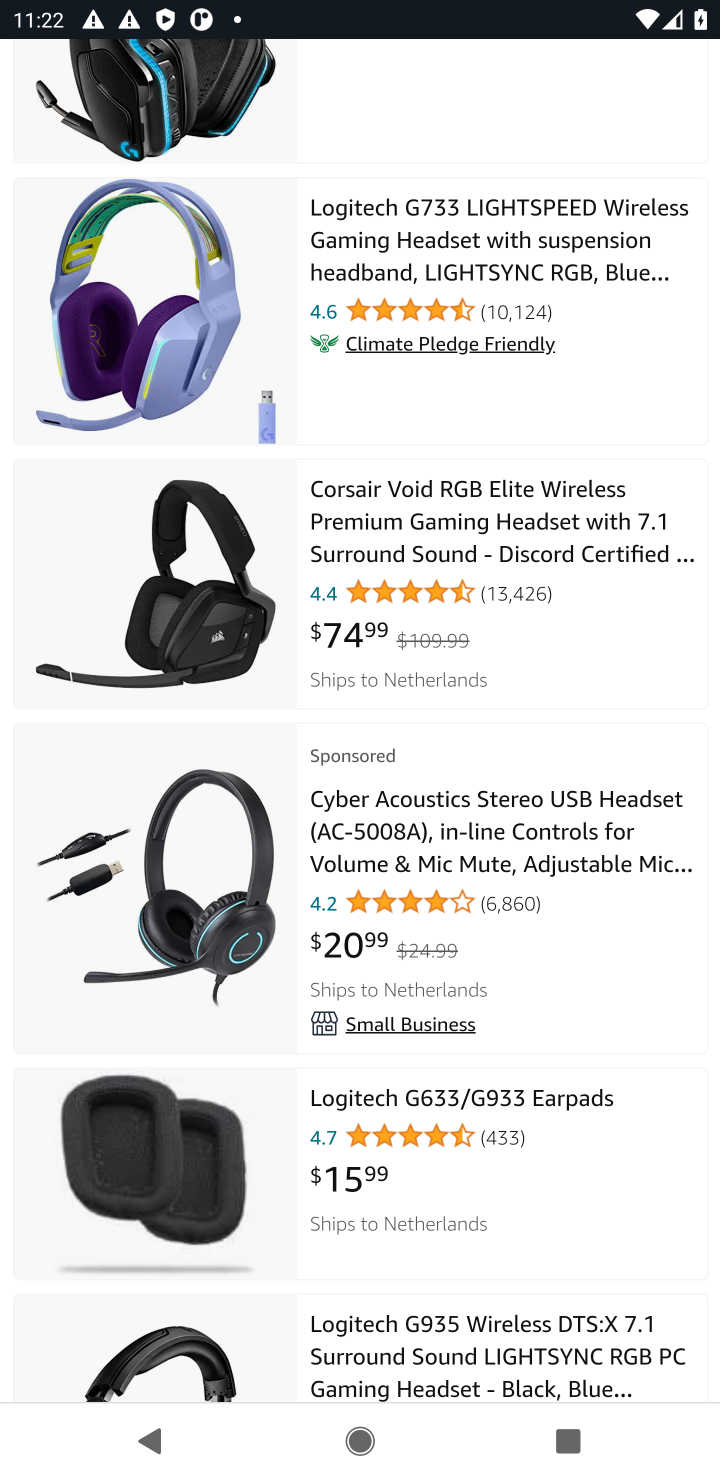
Step 28: click (454, 1115)
Your task to perform on an android device: View the shopping cart on amazon. Add "logitech g933" to the cart on amazon Image 29: 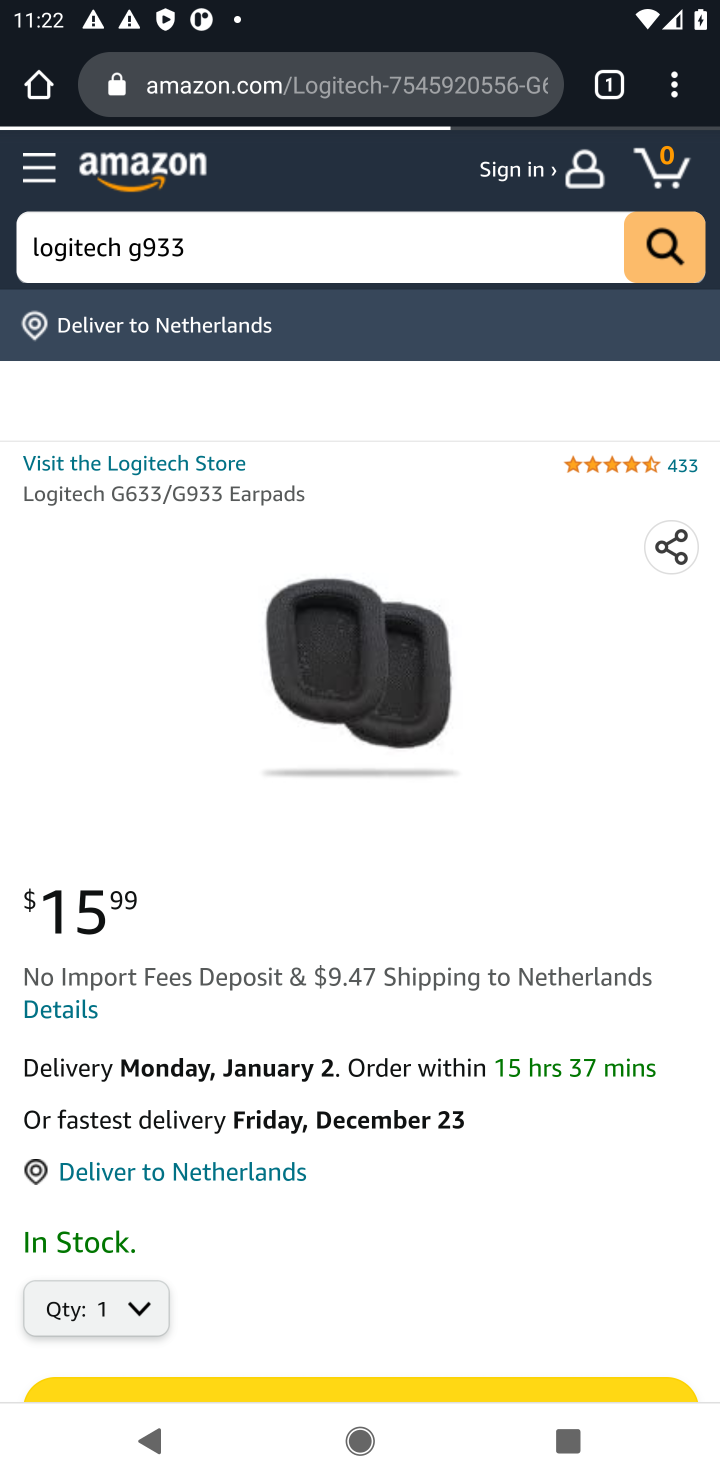
Step 29: drag from (357, 1318) to (405, 903)
Your task to perform on an android device: View the shopping cart on amazon. Add "logitech g933" to the cart on amazon Image 30: 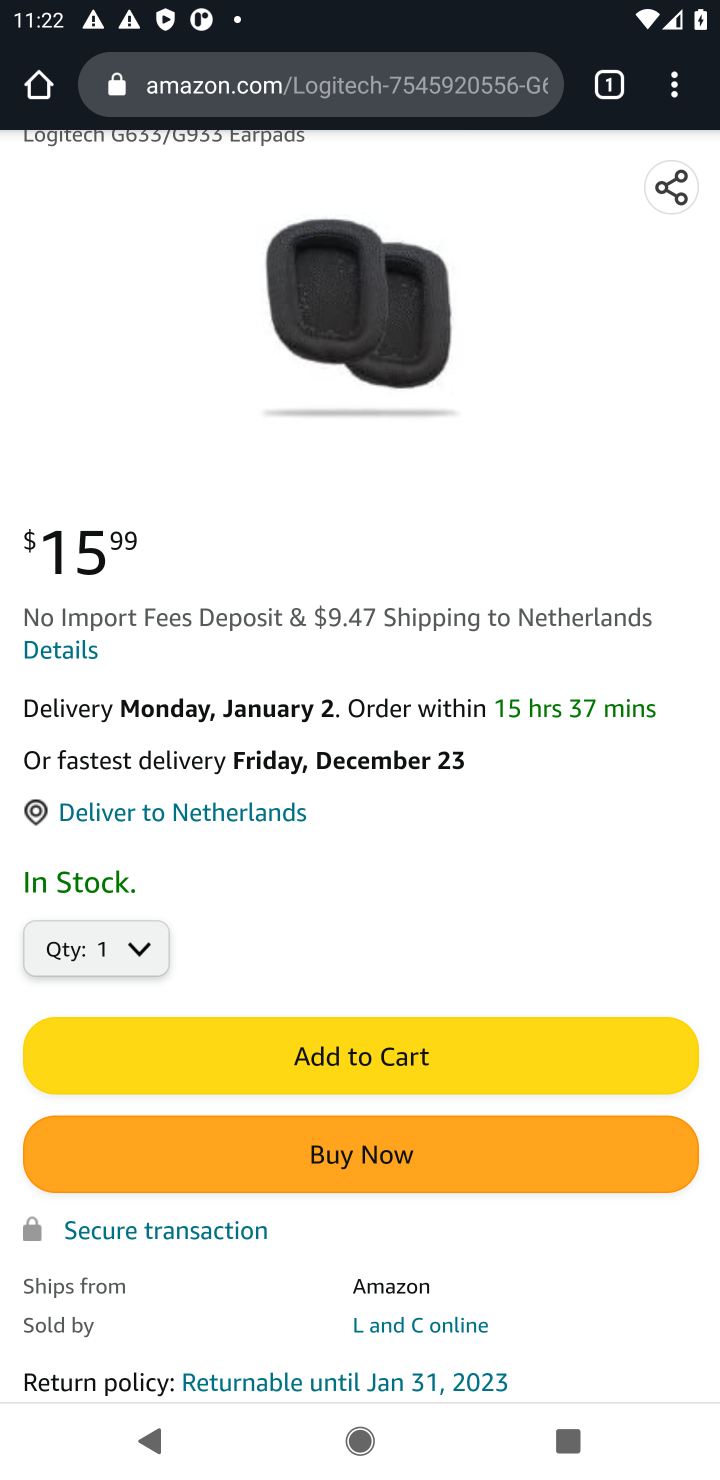
Step 30: click (345, 1064)
Your task to perform on an android device: View the shopping cart on amazon. Add "logitech g933" to the cart on amazon Image 31: 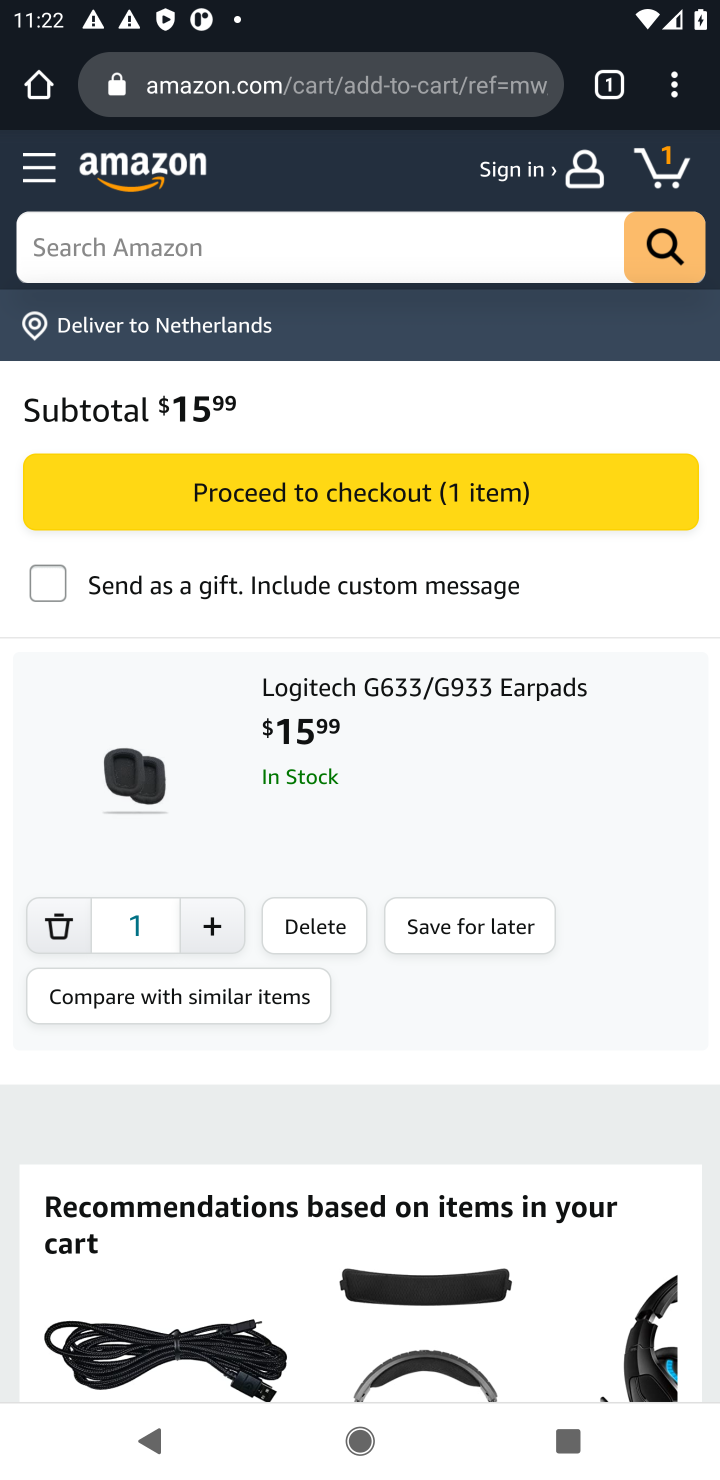
Step 31: task complete